Your task to perform on an android device: turn on translation in the chrome app Image 0: 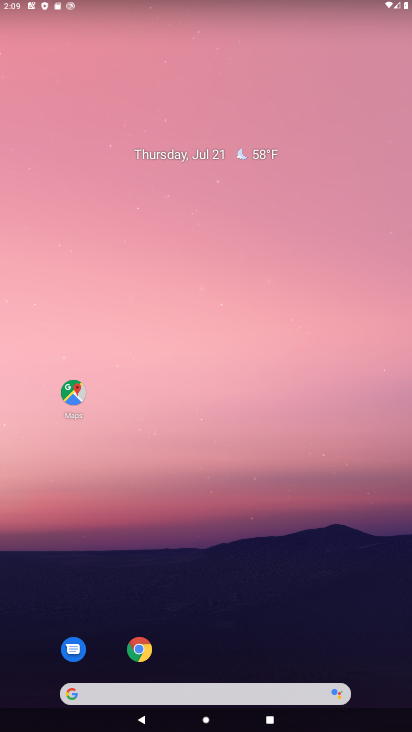
Step 0: click (137, 659)
Your task to perform on an android device: turn on translation in the chrome app Image 1: 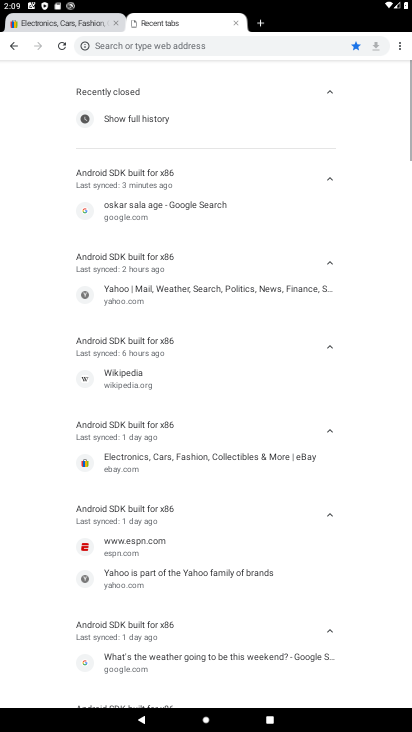
Step 1: task complete